Your task to perform on an android device: open app "DoorDash - Food Delivery" (install if not already installed) and go to login screen Image 0: 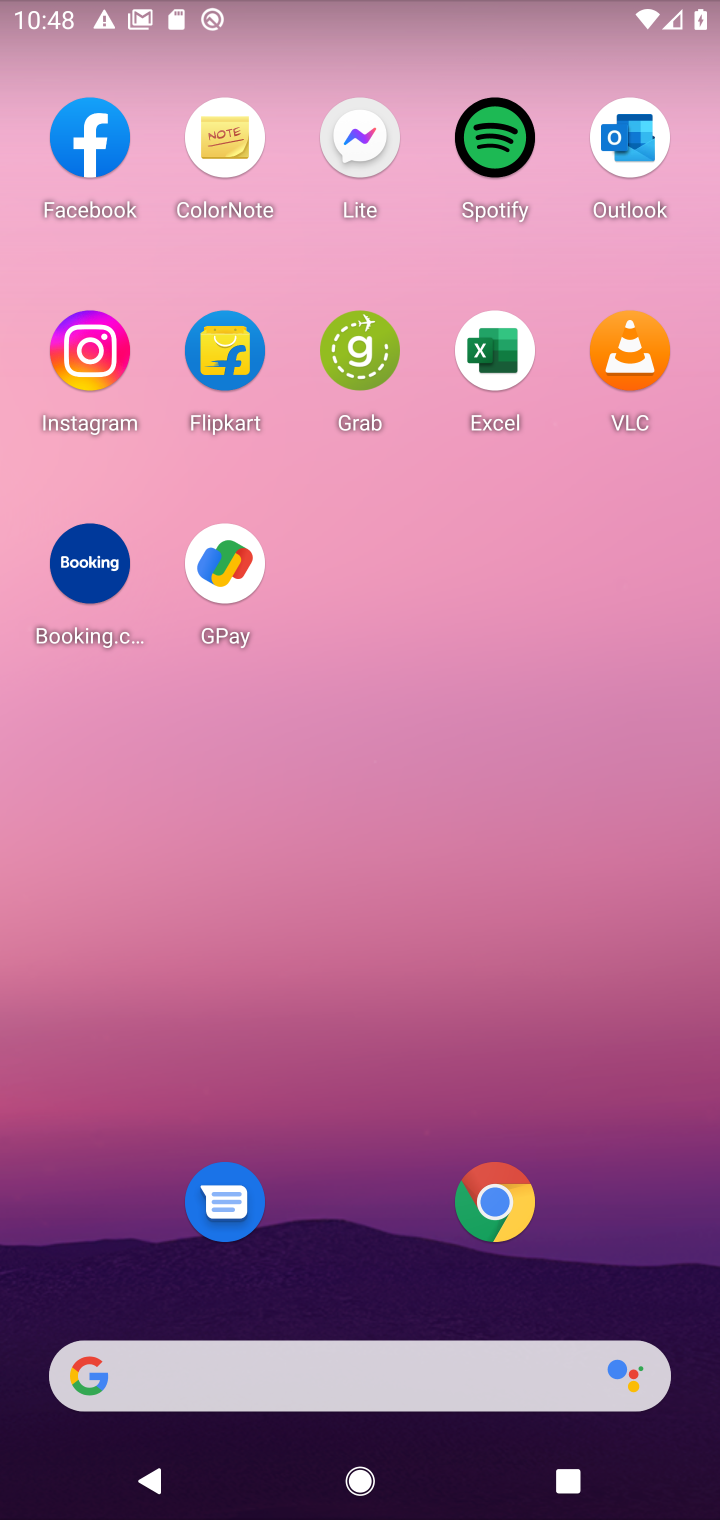
Step 0: drag from (370, 1364) to (334, 327)
Your task to perform on an android device: open app "DoorDash - Food Delivery" (install if not already installed) and go to login screen Image 1: 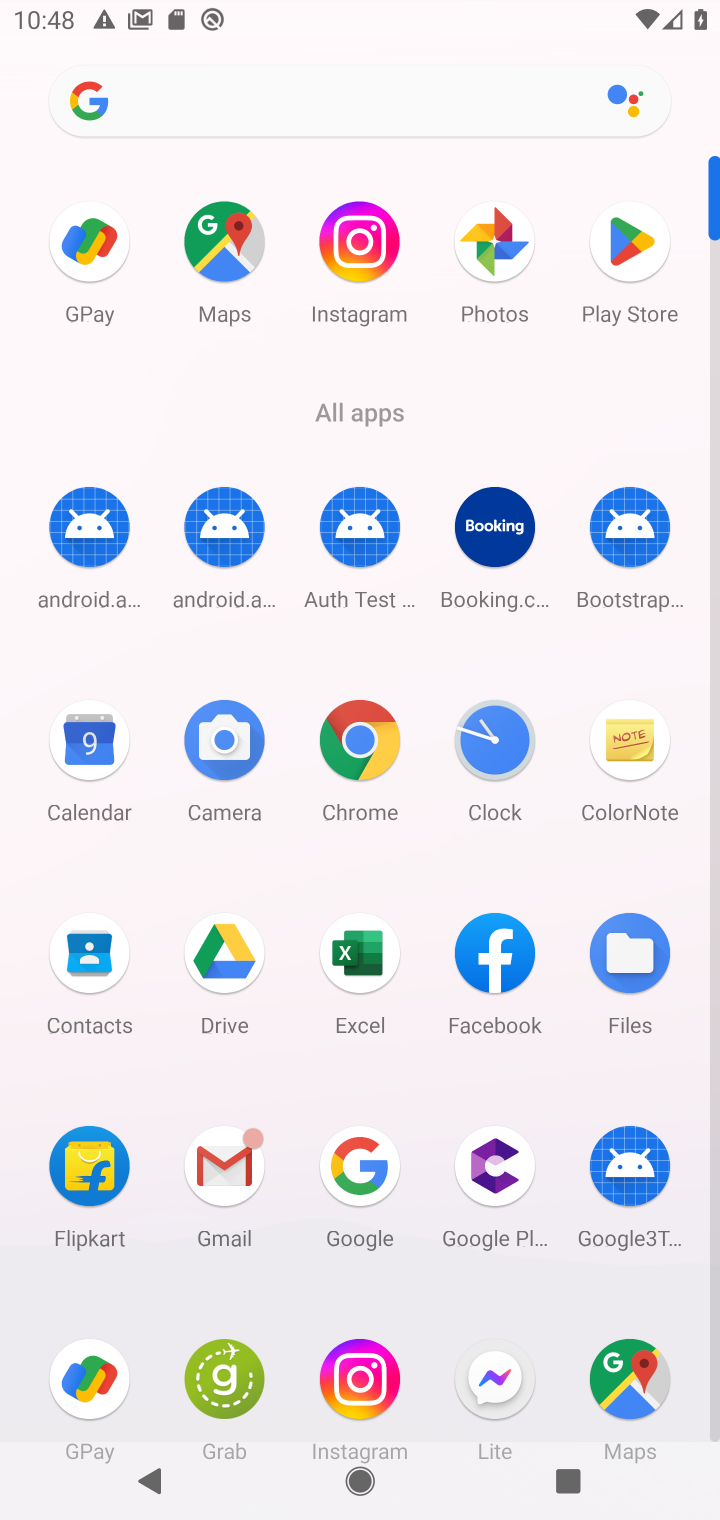
Step 1: click (617, 242)
Your task to perform on an android device: open app "DoorDash - Food Delivery" (install if not already installed) and go to login screen Image 2: 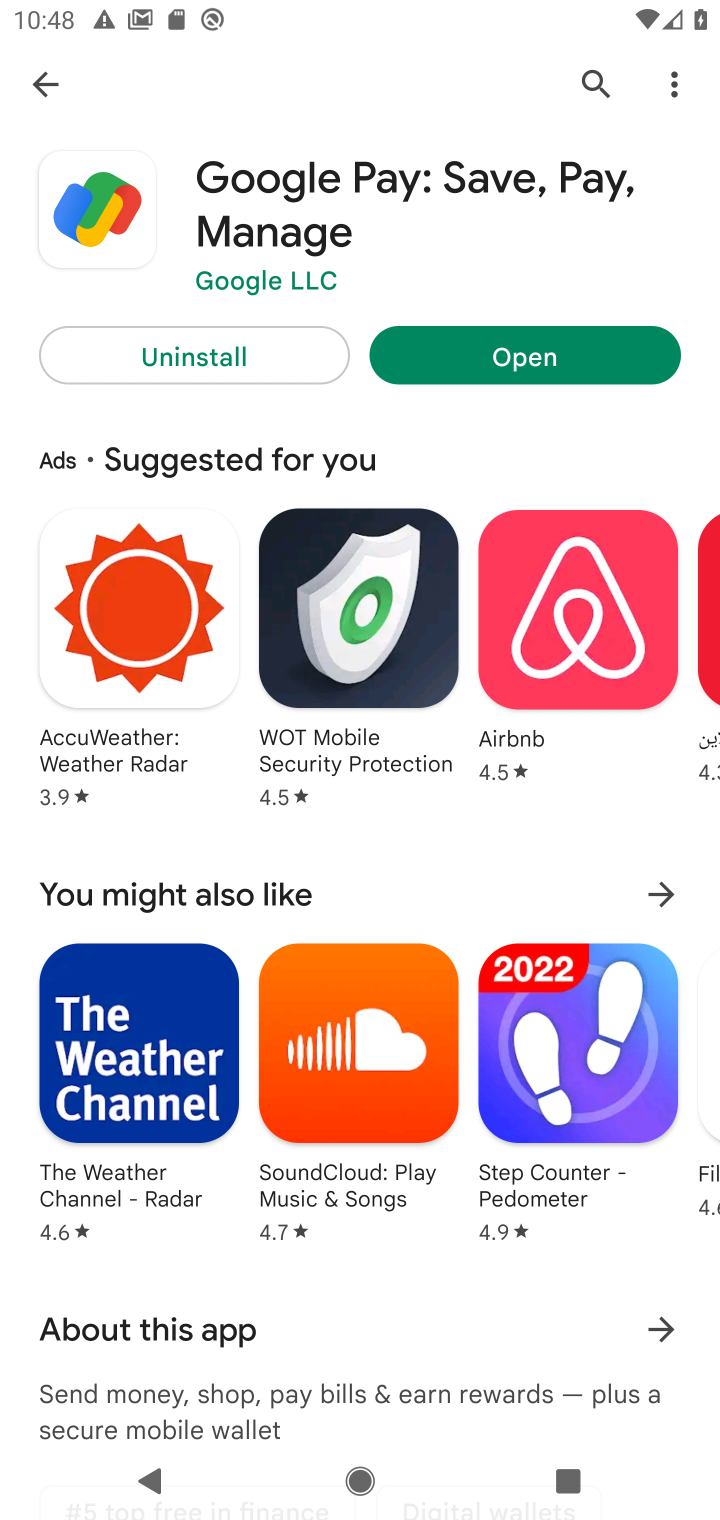
Step 2: click (581, 92)
Your task to perform on an android device: open app "DoorDash - Food Delivery" (install if not already installed) and go to login screen Image 3: 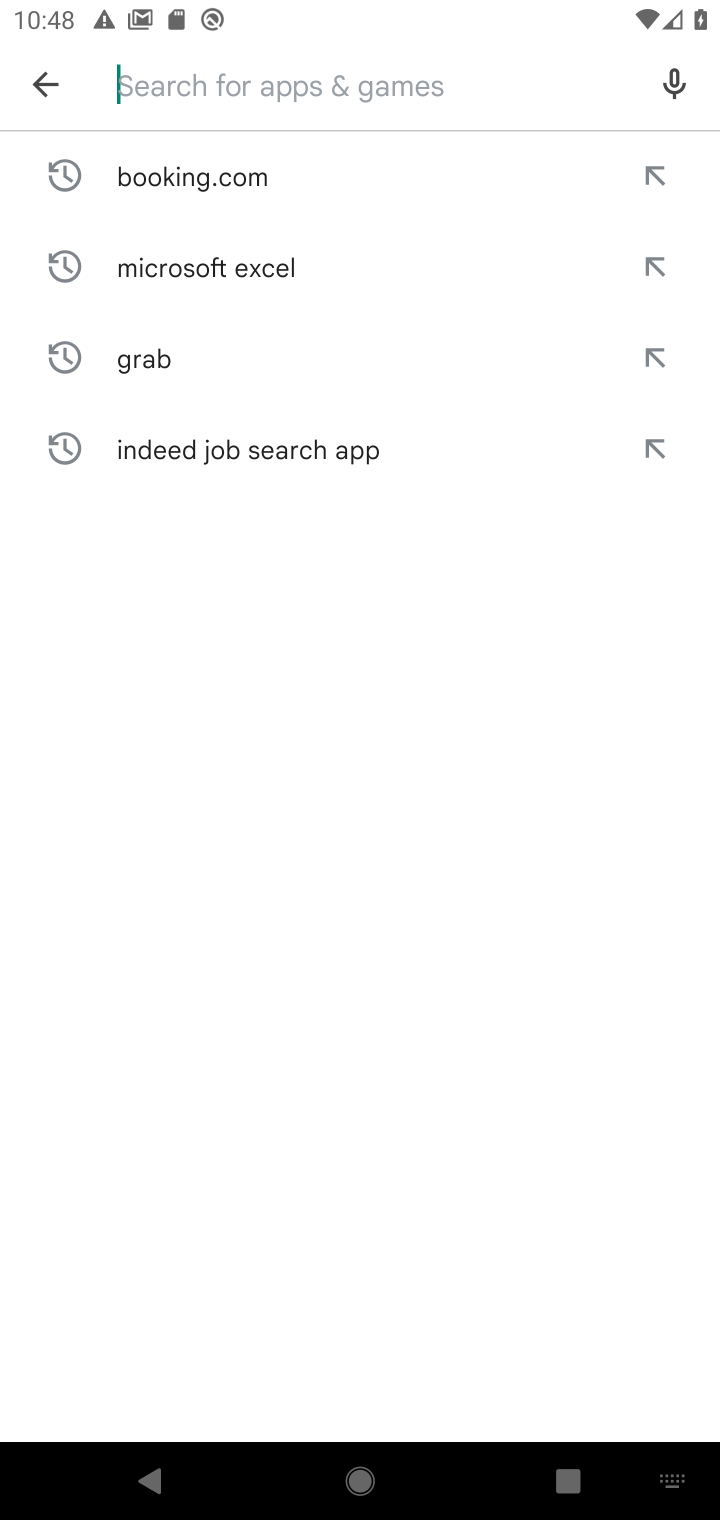
Step 3: type "door dash"
Your task to perform on an android device: open app "DoorDash - Food Delivery" (install if not already installed) and go to login screen Image 4: 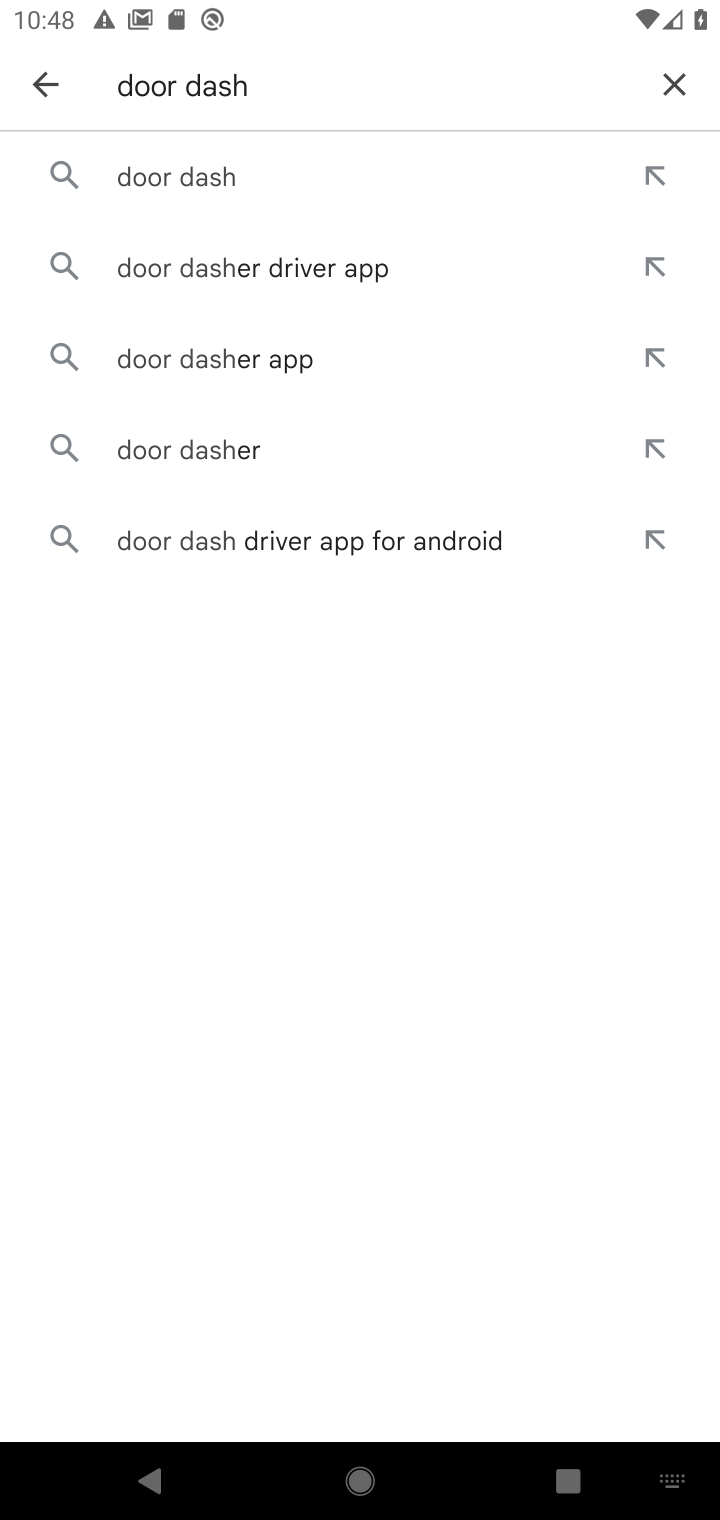
Step 4: click (314, 164)
Your task to perform on an android device: open app "DoorDash - Food Delivery" (install if not already installed) and go to login screen Image 5: 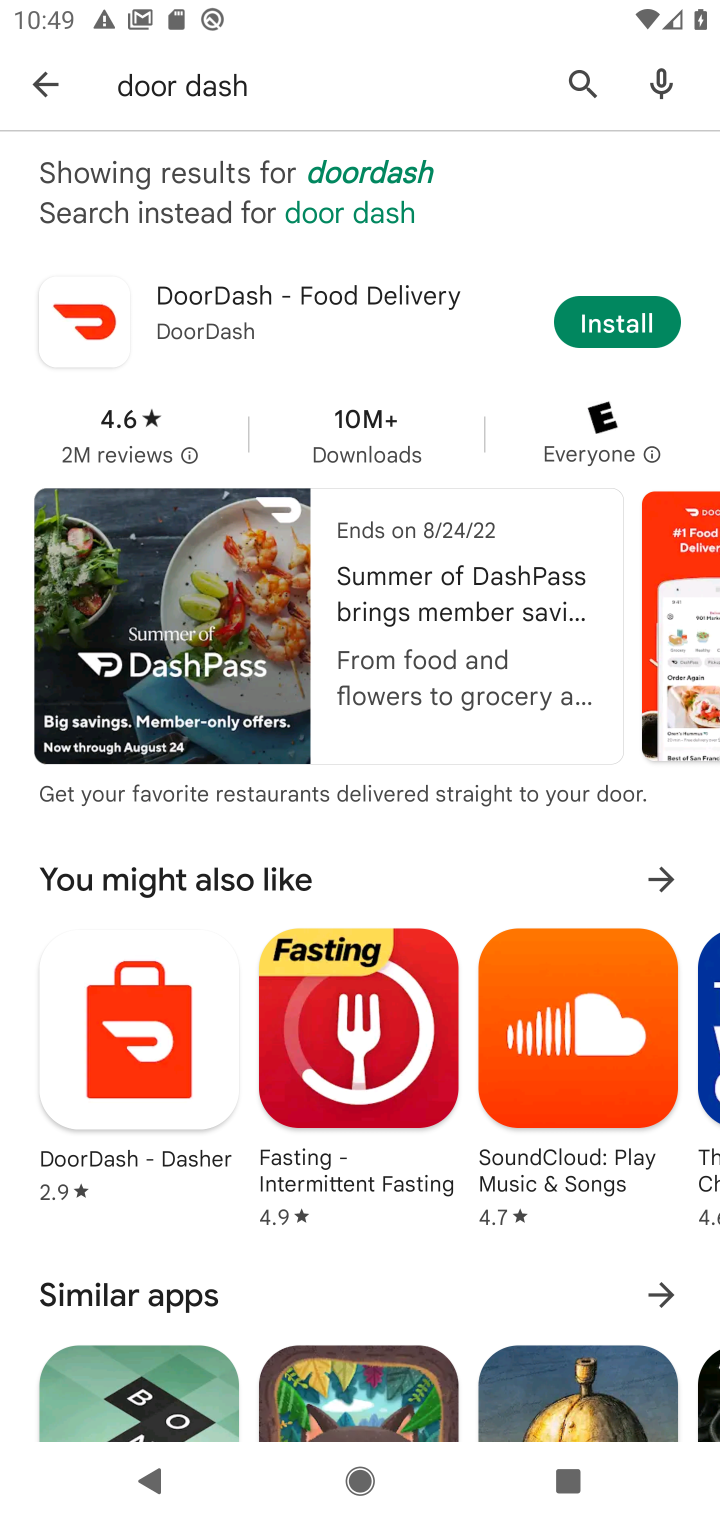
Step 5: click (630, 327)
Your task to perform on an android device: open app "DoorDash - Food Delivery" (install if not already installed) and go to login screen Image 6: 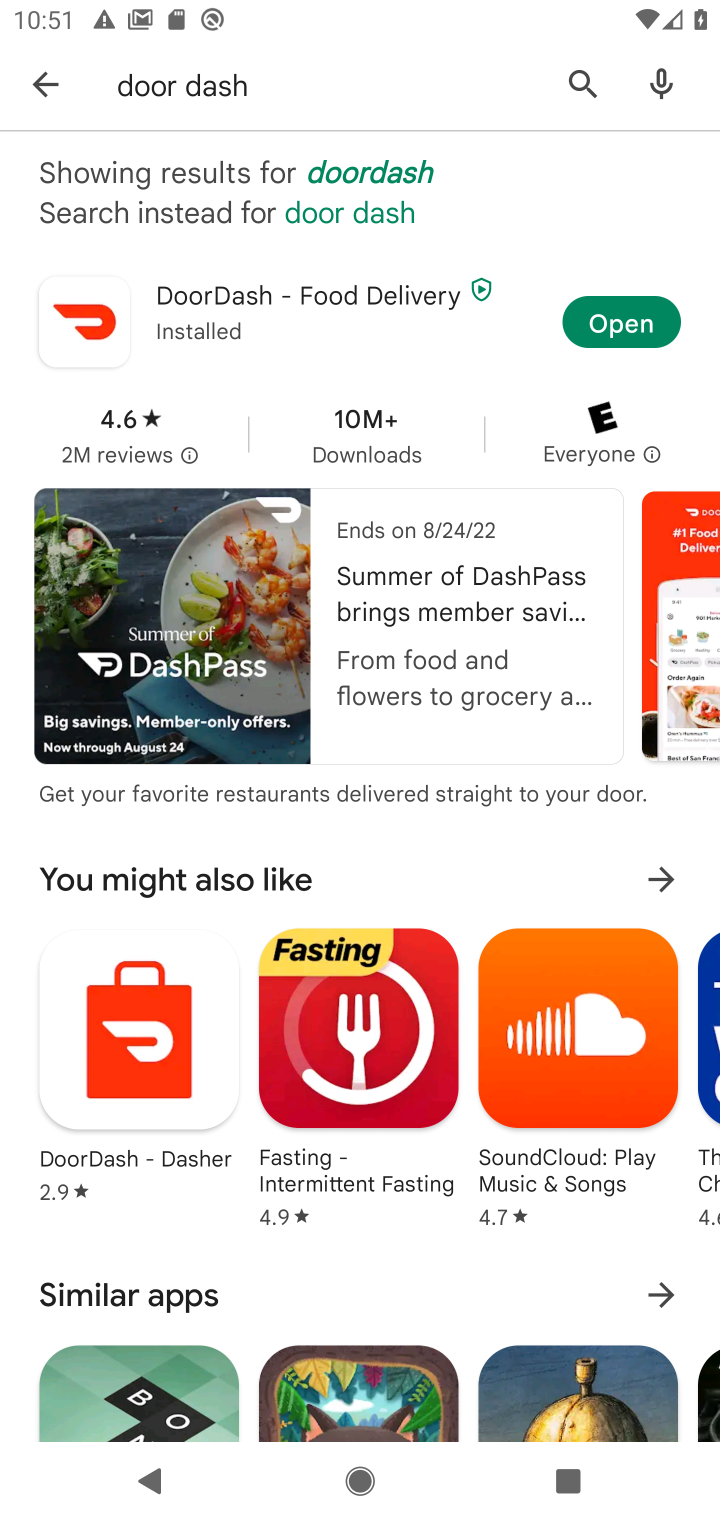
Step 6: click (610, 318)
Your task to perform on an android device: open app "DoorDash - Food Delivery" (install if not already installed) and go to login screen Image 7: 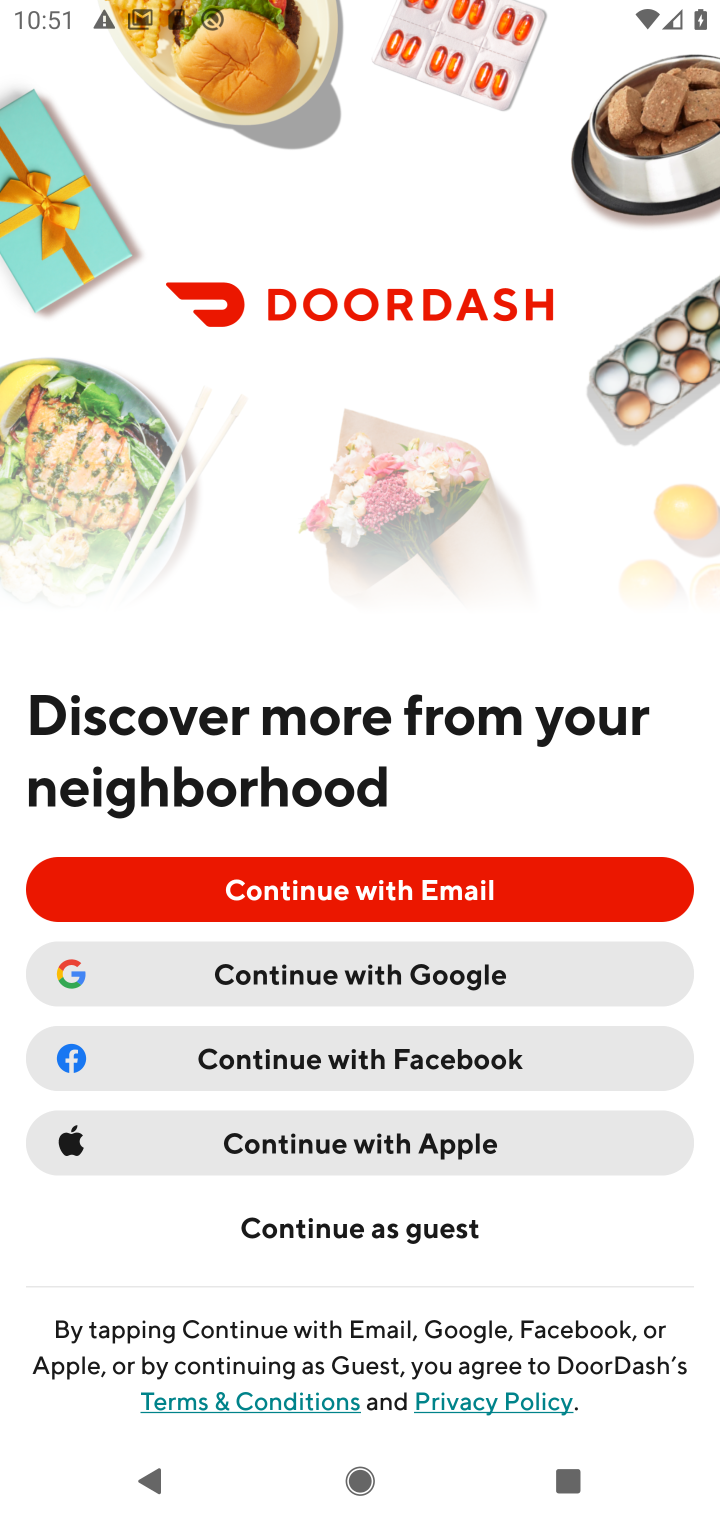
Step 7: click (461, 898)
Your task to perform on an android device: open app "DoorDash - Food Delivery" (install if not already installed) and go to login screen Image 8: 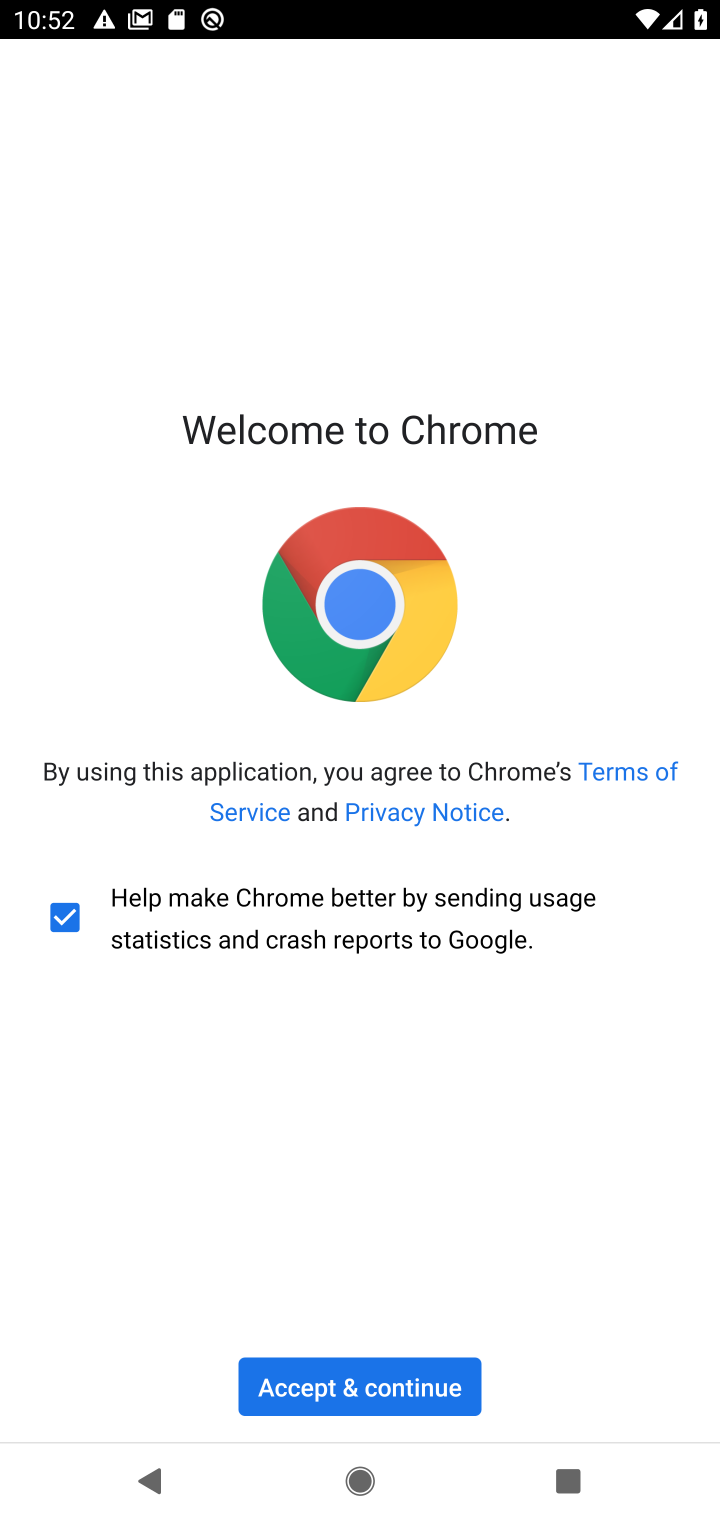
Step 8: click (389, 1389)
Your task to perform on an android device: open app "DoorDash - Food Delivery" (install if not already installed) and go to login screen Image 9: 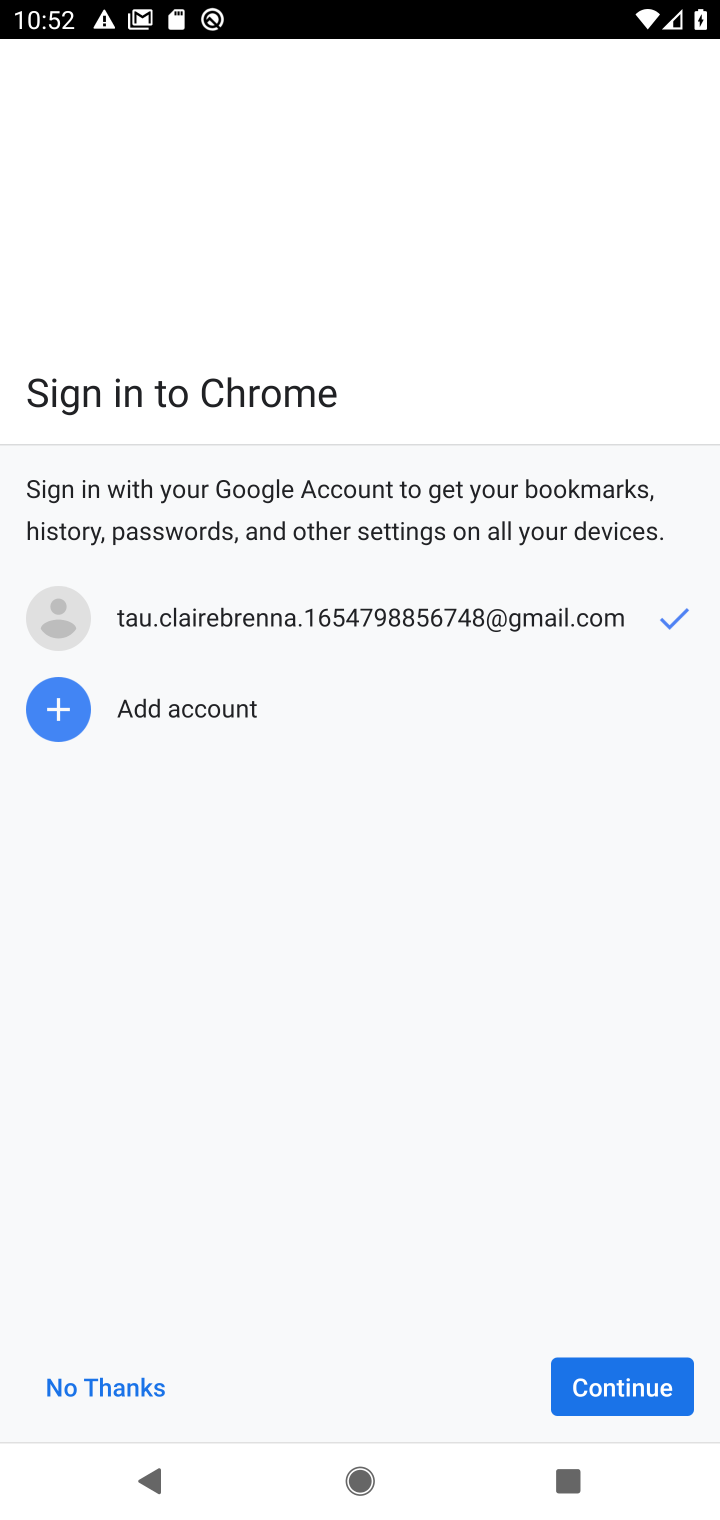
Step 9: click (601, 1380)
Your task to perform on an android device: open app "DoorDash - Food Delivery" (install if not already installed) and go to login screen Image 10: 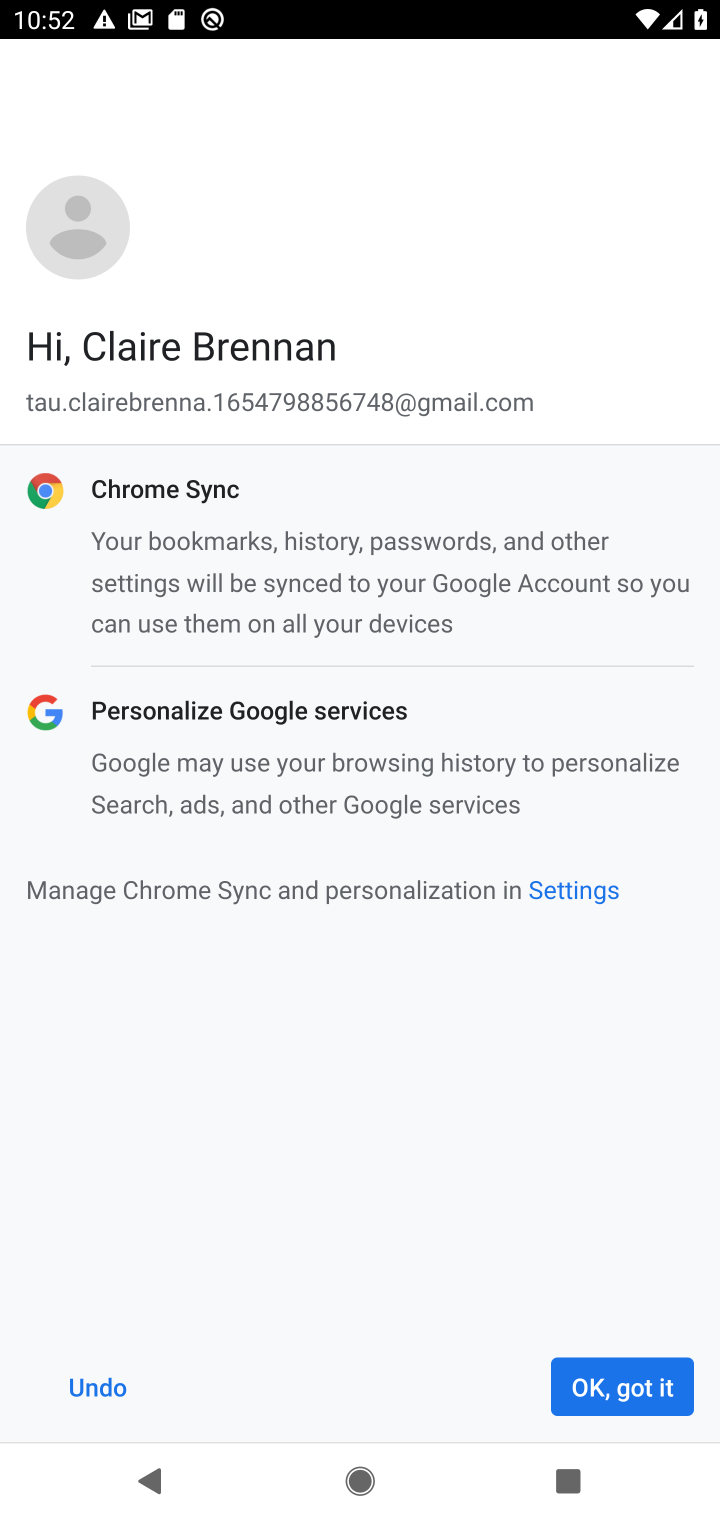
Step 10: click (601, 1380)
Your task to perform on an android device: open app "DoorDash - Food Delivery" (install if not already installed) and go to login screen Image 11: 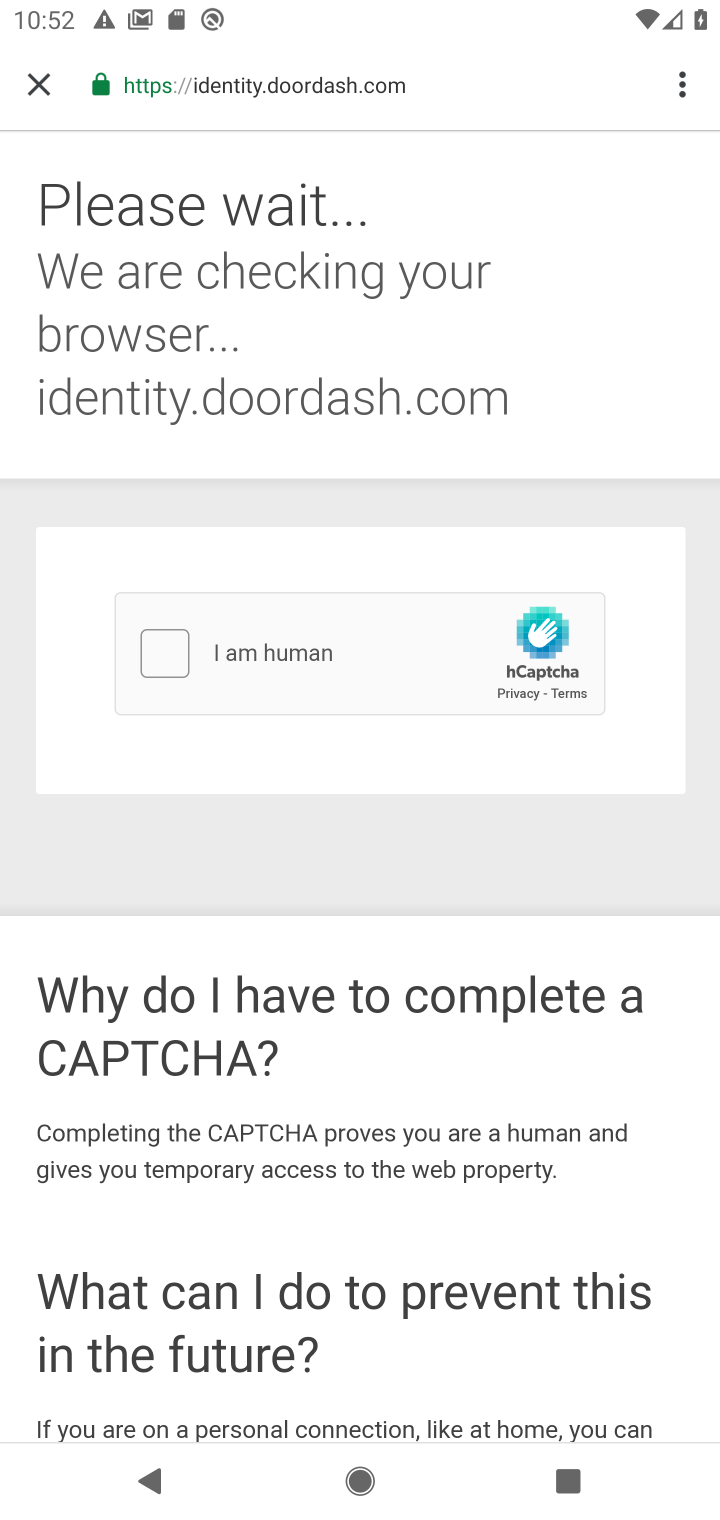
Step 11: task complete